Your task to perform on an android device: Open network settings Image 0: 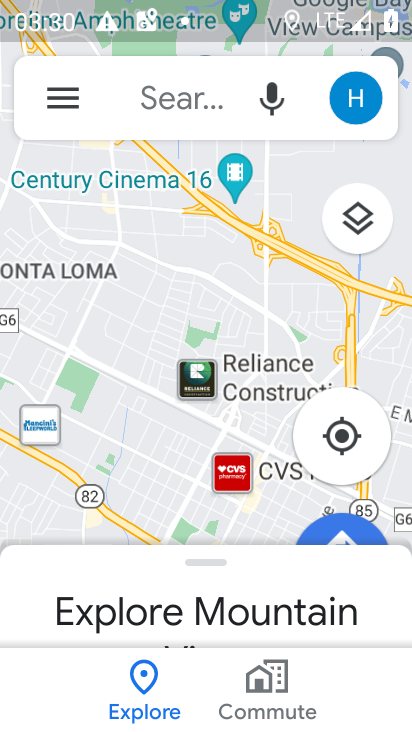
Step 0: press home button
Your task to perform on an android device: Open network settings Image 1: 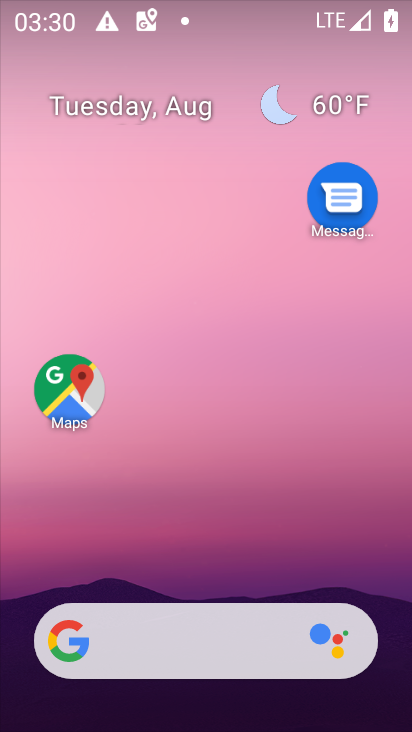
Step 1: drag from (171, 598) to (165, 36)
Your task to perform on an android device: Open network settings Image 2: 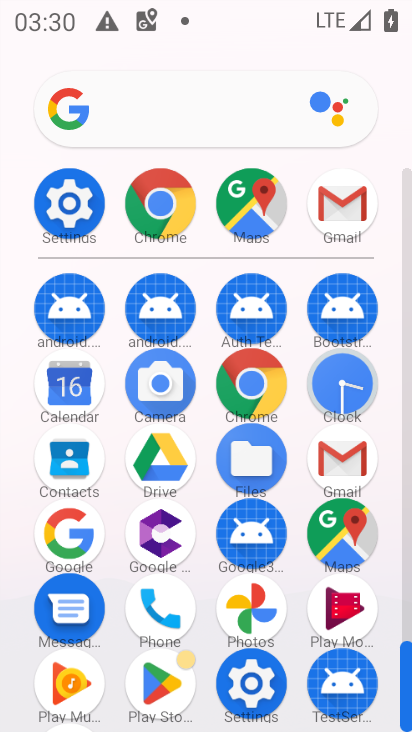
Step 2: click (50, 199)
Your task to perform on an android device: Open network settings Image 3: 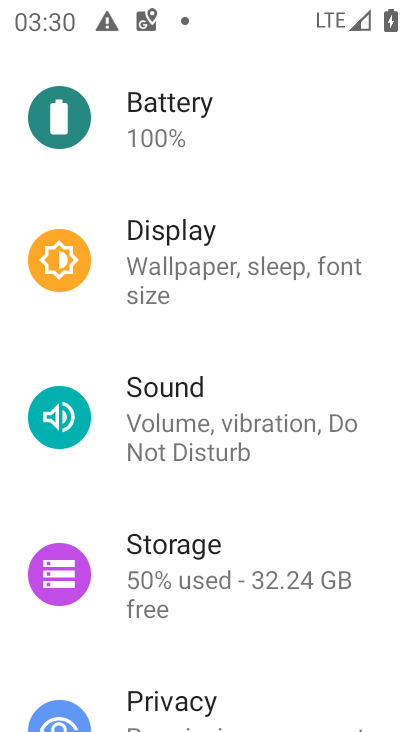
Step 3: drag from (112, 147) to (194, 640)
Your task to perform on an android device: Open network settings Image 4: 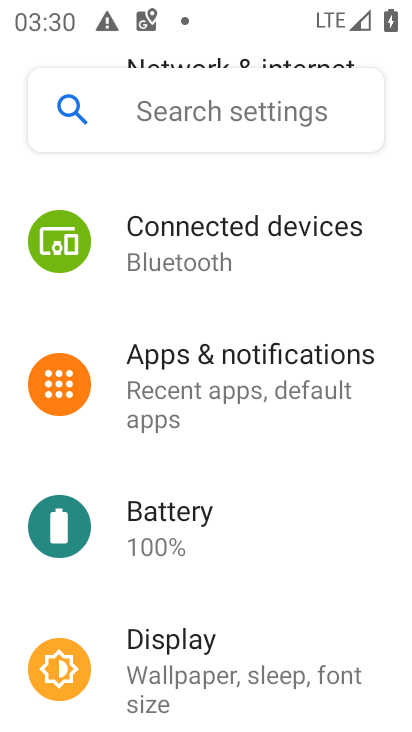
Step 4: drag from (191, 196) to (172, 496)
Your task to perform on an android device: Open network settings Image 5: 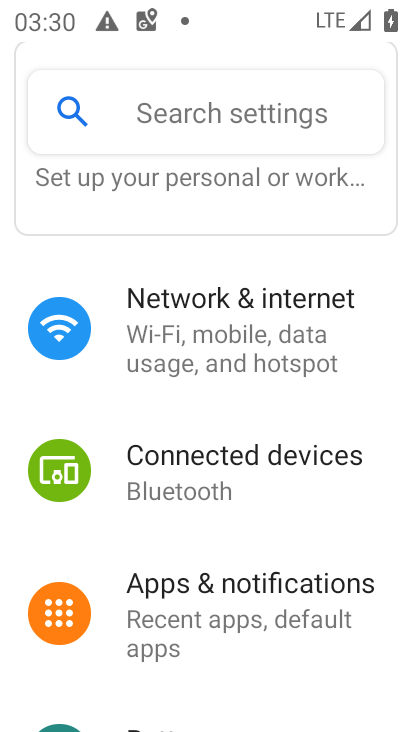
Step 5: click (212, 290)
Your task to perform on an android device: Open network settings Image 6: 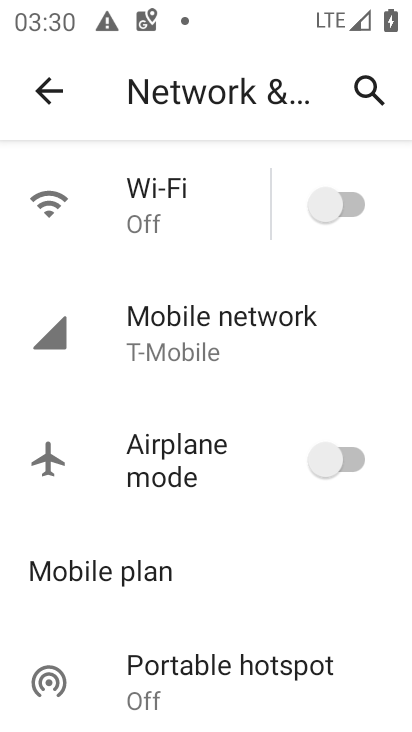
Step 6: task complete